Your task to perform on an android device: turn off priority inbox in the gmail app Image 0: 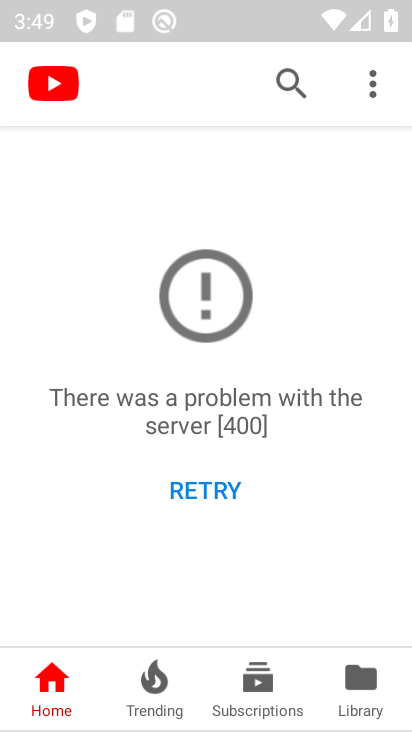
Step 0: press home button
Your task to perform on an android device: turn off priority inbox in the gmail app Image 1: 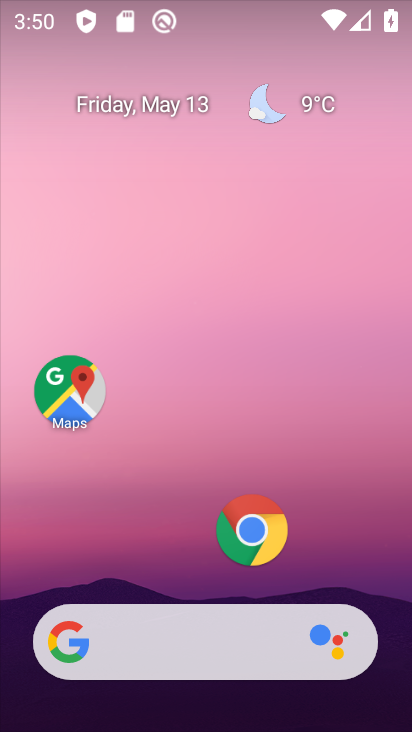
Step 1: drag from (205, 581) to (204, 115)
Your task to perform on an android device: turn off priority inbox in the gmail app Image 2: 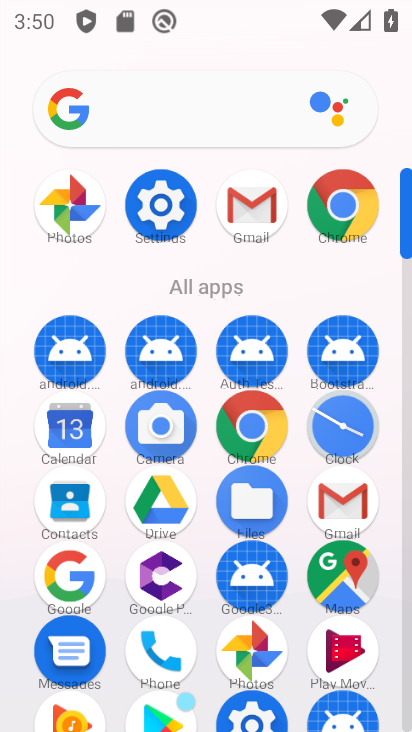
Step 2: click (341, 492)
Your task to perform on an android device: turn off priority inbox in the gmail app Image 3: 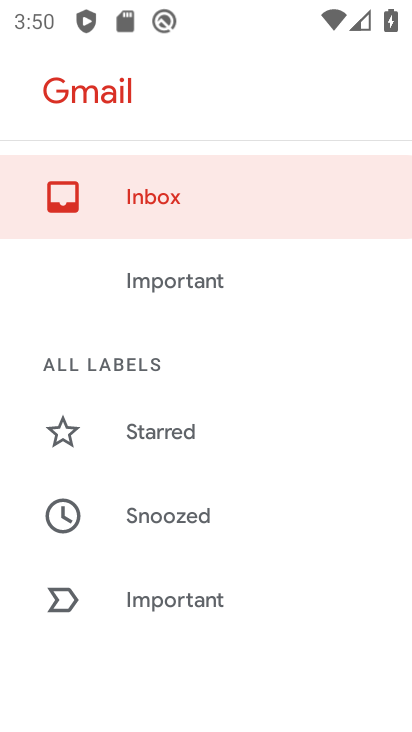
Step 3: drag from (200, 586) to (204, 140)
Your task to perform on an android device: turn off priority inbox in the gmail app Image 4: 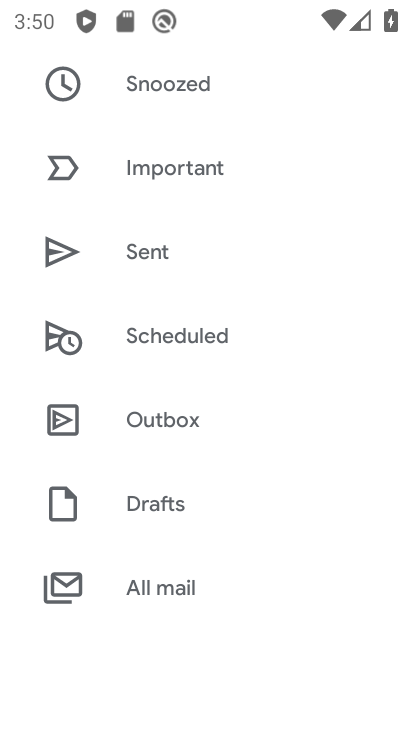
Step 4: drag from (201, 595) to (222, 57)
Your task to perform on an android device: turn off priority inbox in the gmail app Image 5: 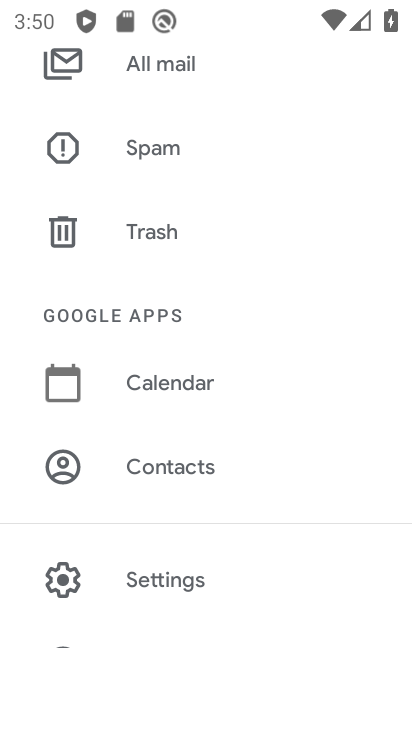
Step 5: click (216, 568)
Your task to perform on an android device: turn off priority inbox in the gmail app Image 6: 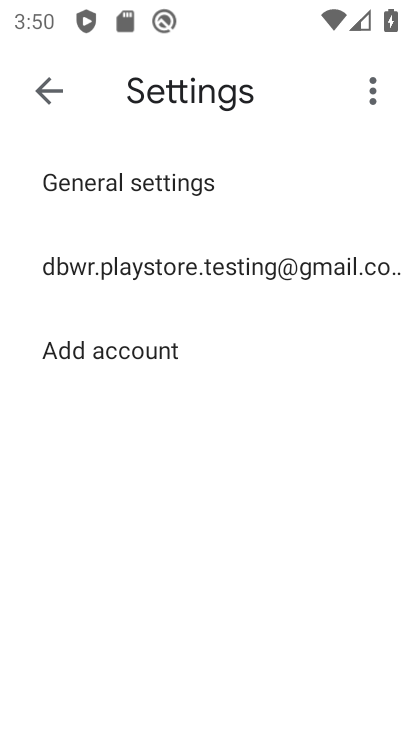
Step 6: click (283, 260)
Your task to perform on an android device: turn off priority inbox in the gmail app Image 7: 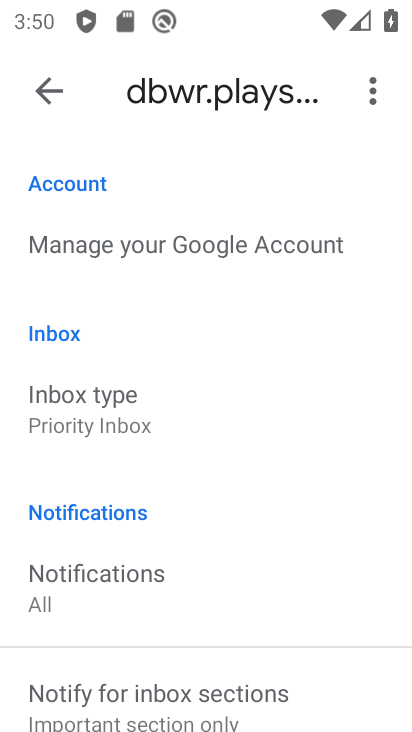
Step 7: click (156, 407)
Your task to perform on an android device: turn off priority inbox in the gmail app Image 8: 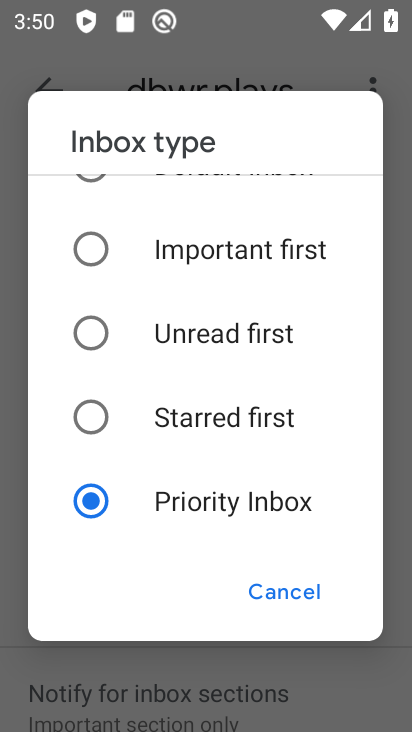
Step 8: click (95, 406)
Your task to perform on an android device: turn off priority inbox in the gmail app Image 9: 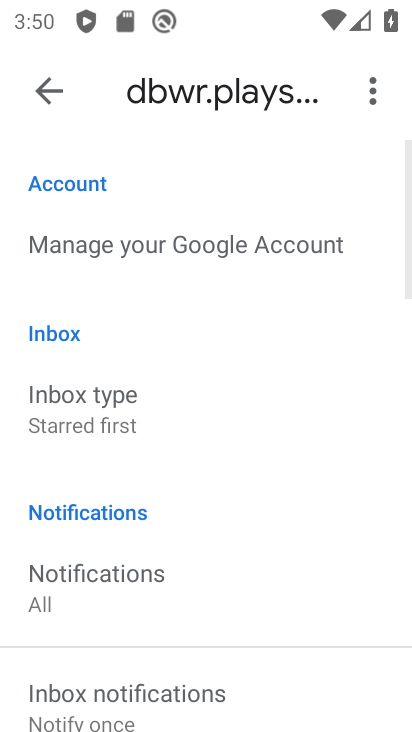
Step 9: task complete